Your task to perform on an android device: What's the weather today? Image 0: 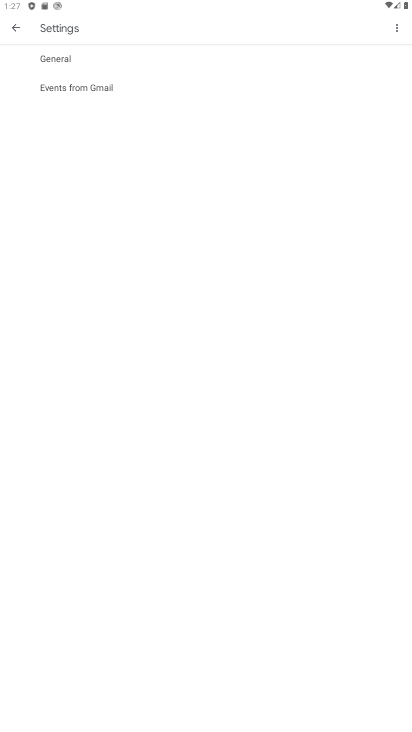
Step 0: press home button
Your task to perform on an android device: What's the weather today? Image 1: 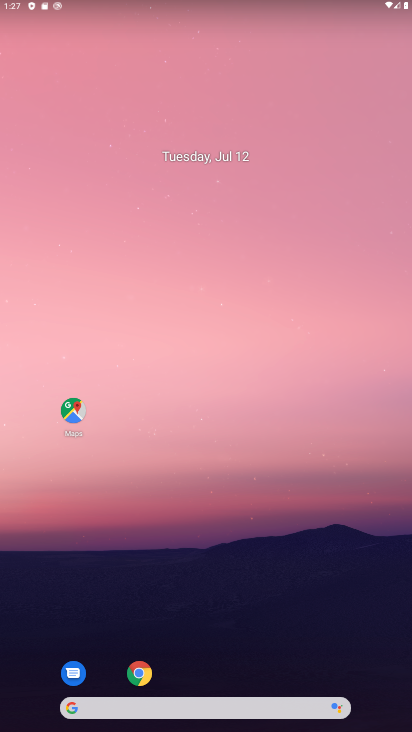
Step 1: drag from (326, 588) to (319, 125)
Your task to perform on an android device: What's the weather today? Image 2: 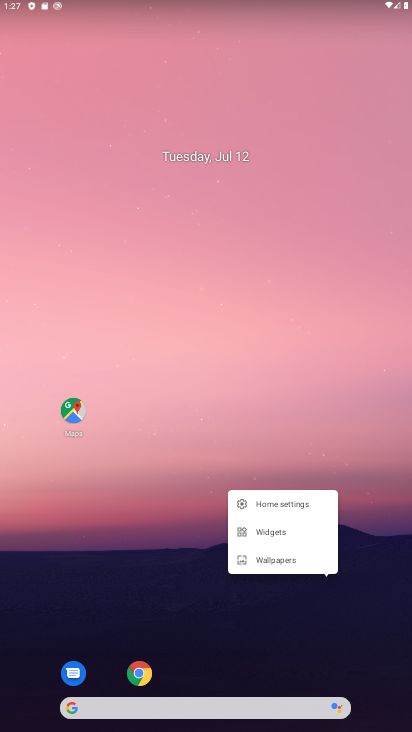
Step 2: click (362, 642)
Your task to perform on an android device: What's the weather today? Image 3: 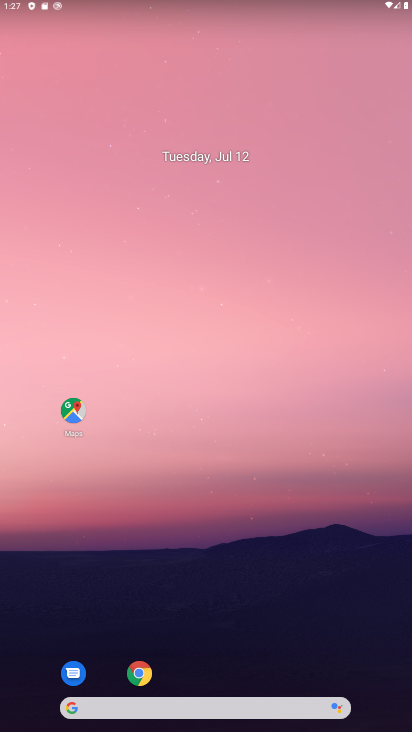
Step 3: drag from (316, 685) to (298, 153)
Your task to perform on an android device: What's the weather today? Image 4: 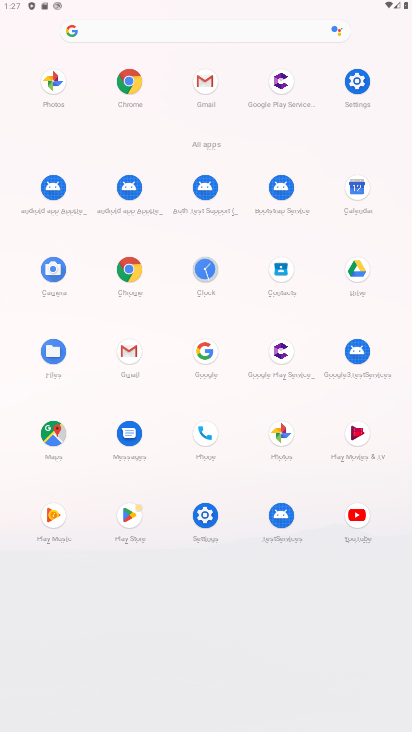
Step 4: click (202, 356)
Your task to perform on an android device: What's the weather today? Image 5: 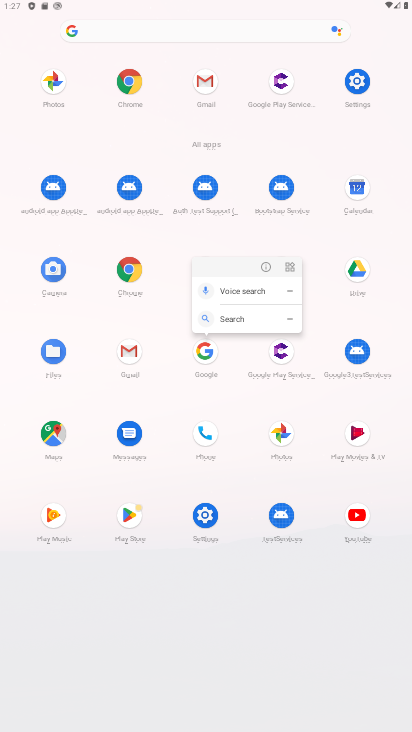
Step 5: click (203, 354)
Your task to perform on an android device: What's the weather today? Image 6: 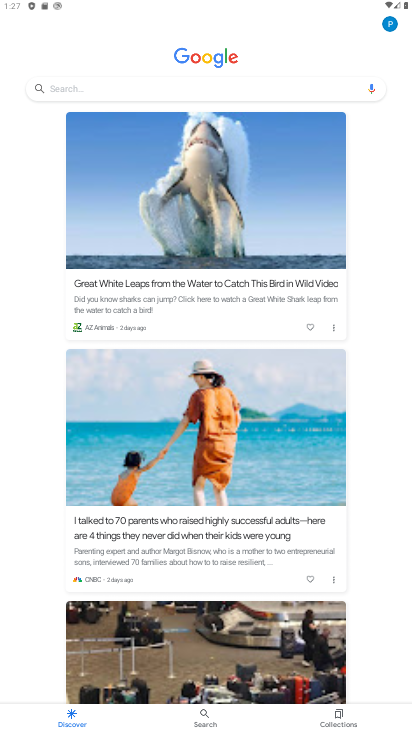
Step 6: click (140, 92)
Your task to perform on an android device: What's the weather today? Image 7: 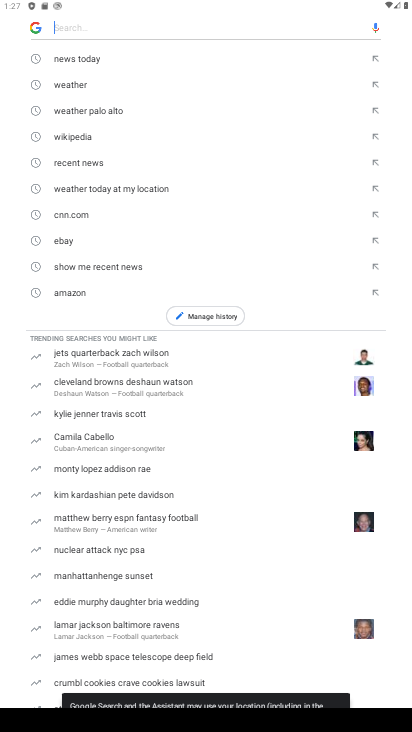
Step 7: click (74, 87)
Your task to perform on an android device: What's the weather today? Image 8: 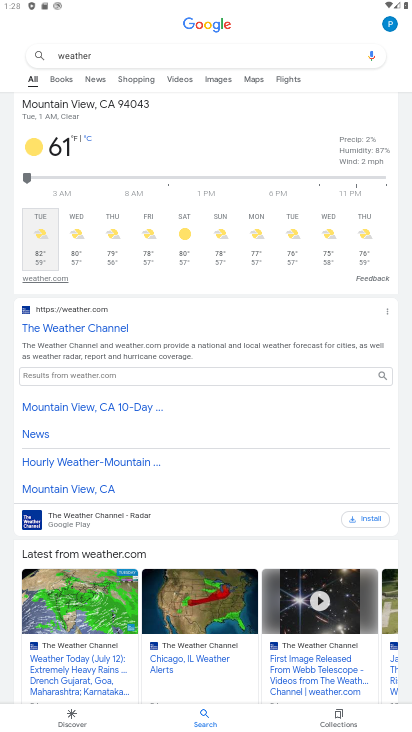
Step 8: task complete